Your task to perform on an android device: check out phone information Image 0: 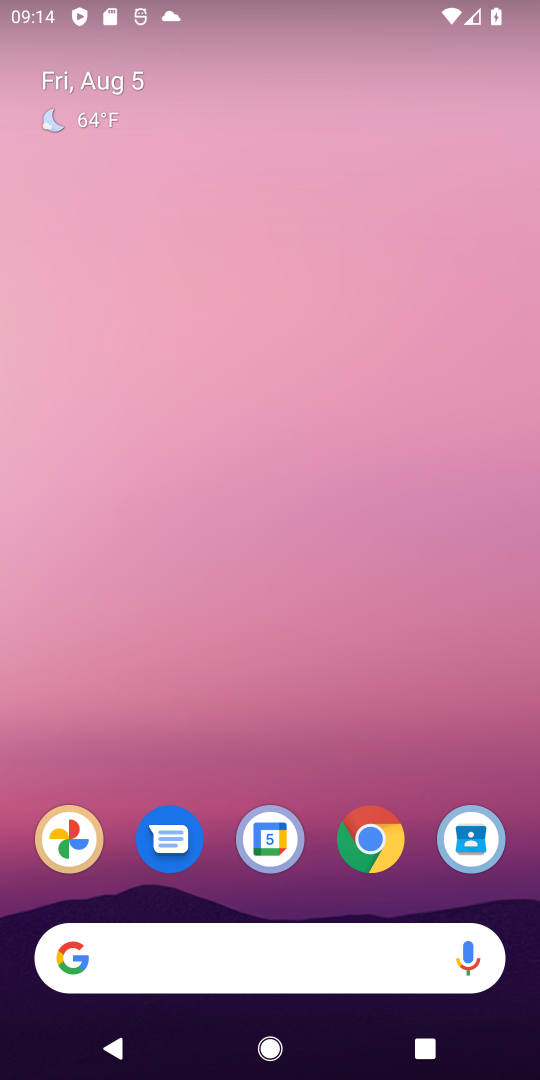
Step 0: drag from (316, 907) to (271, 172)
Your task to perform on an android device: check out phone information Image 1: 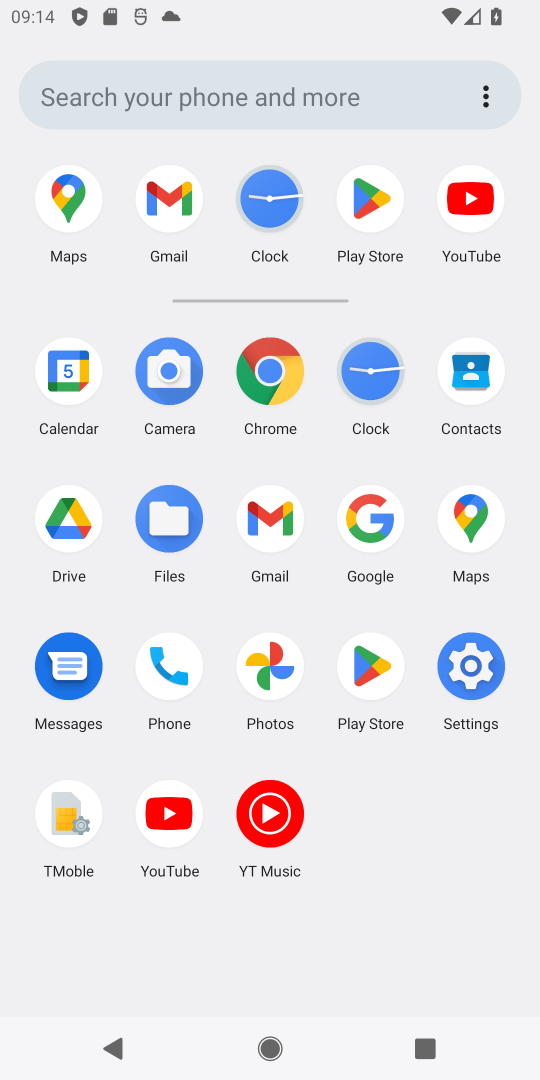
Step 1: click (460, 675)
Your task to perform on an android device: check out phone information Image 2: 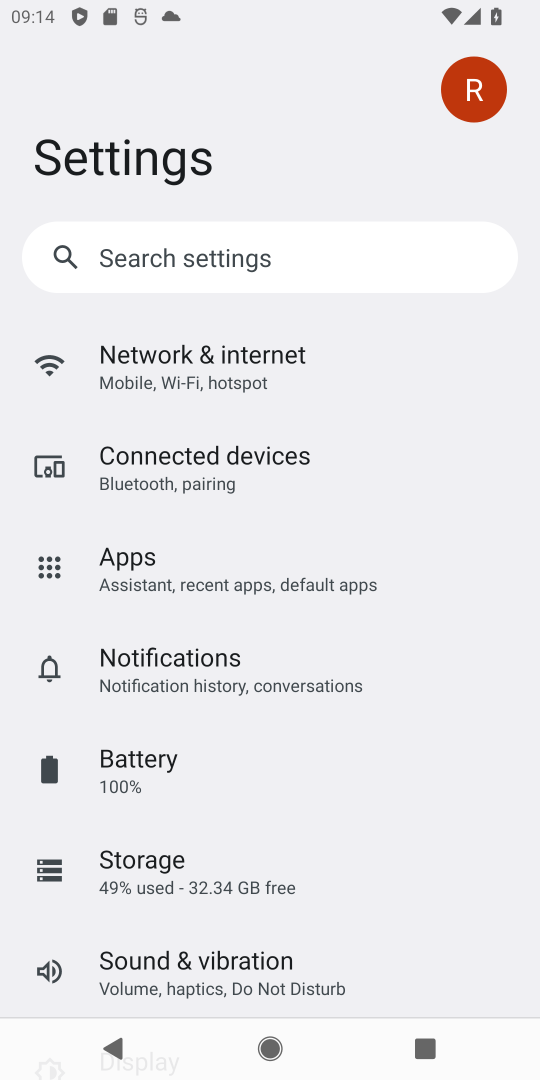
Step 2: drag from (224, 889) to (174, 416)
Your task to perform on an android device: check out phone information Image 3: 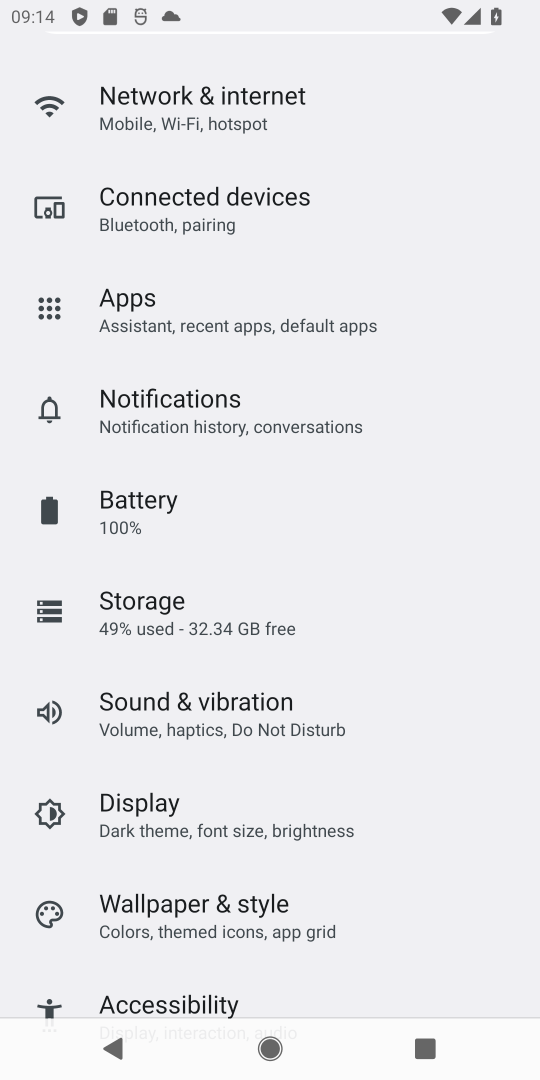
Step 3: drag from (242, 999) to (232, 425)
Your task to perform on an android device: check out phone information Image 4: 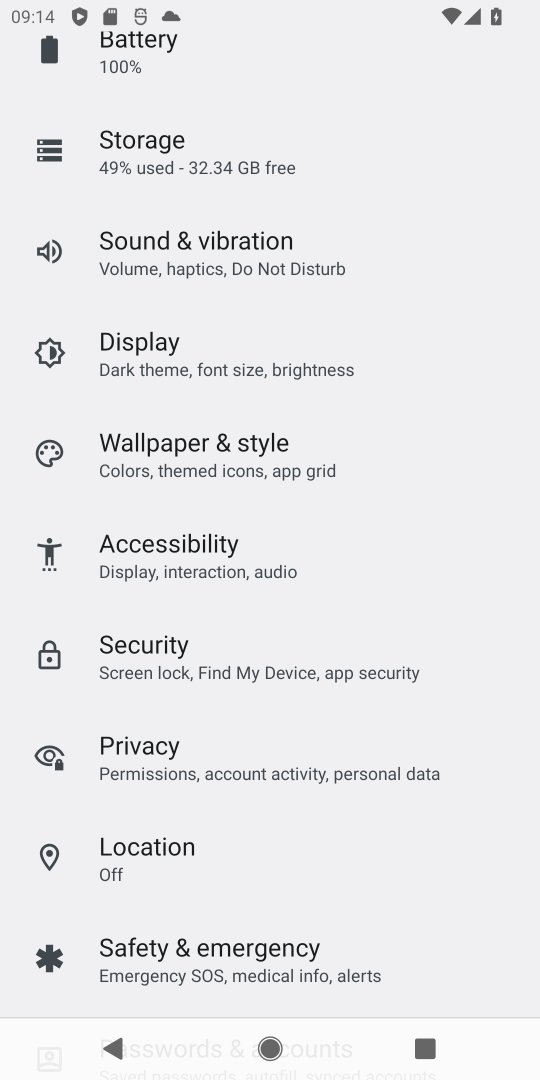
Step 4: drag from (230, 795) to (286, 365)
Your task to perform on an android device: check out phone information Image 5: 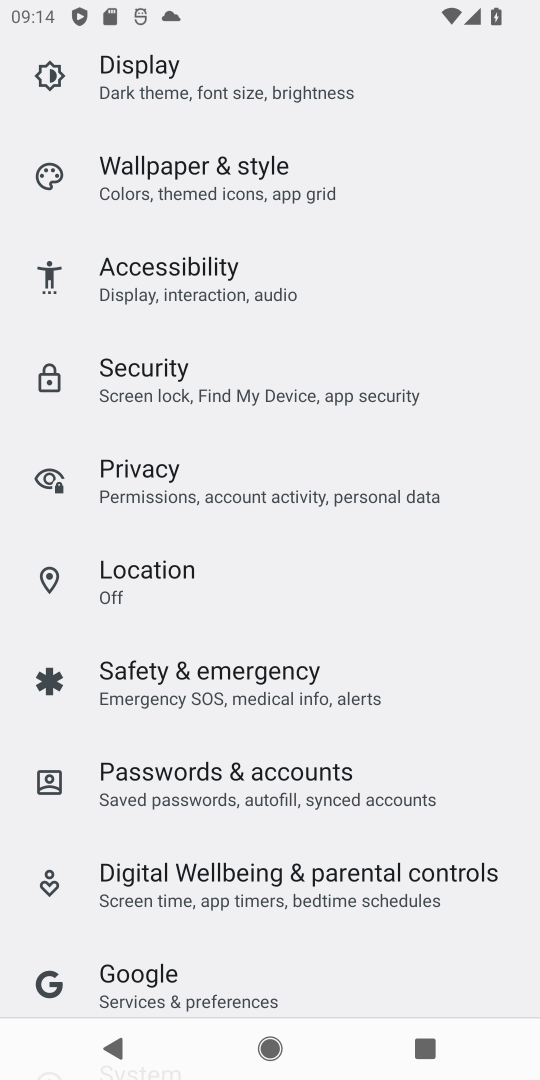
Step 5: drag from (173, 974) to (209, 419)
Your task to perform on an android device: check out phone information Image 6: 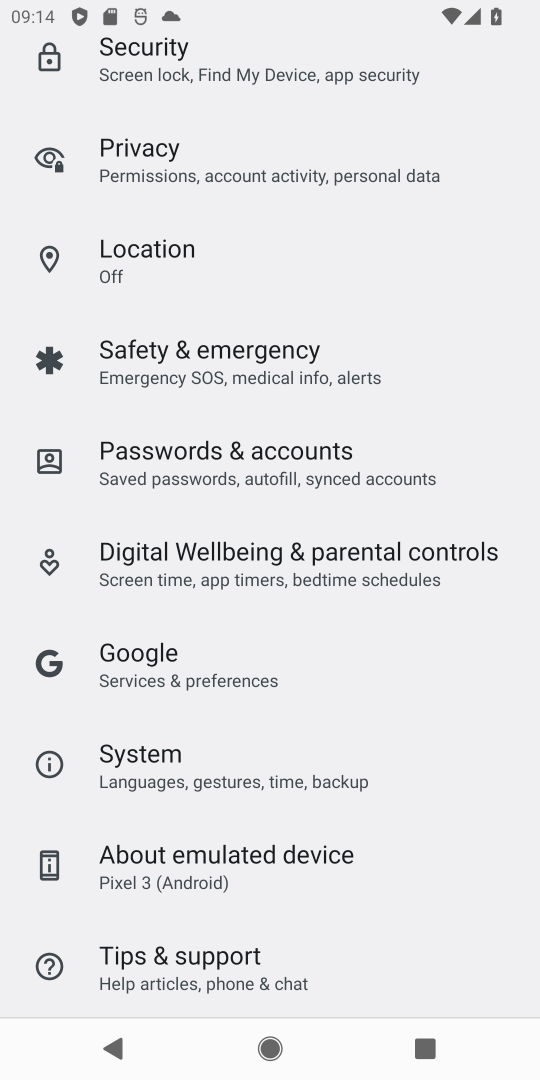
Step 6: drag from (227, 977) to (224, 492)
Your task to perform on an android device: check out phone information Image 7: 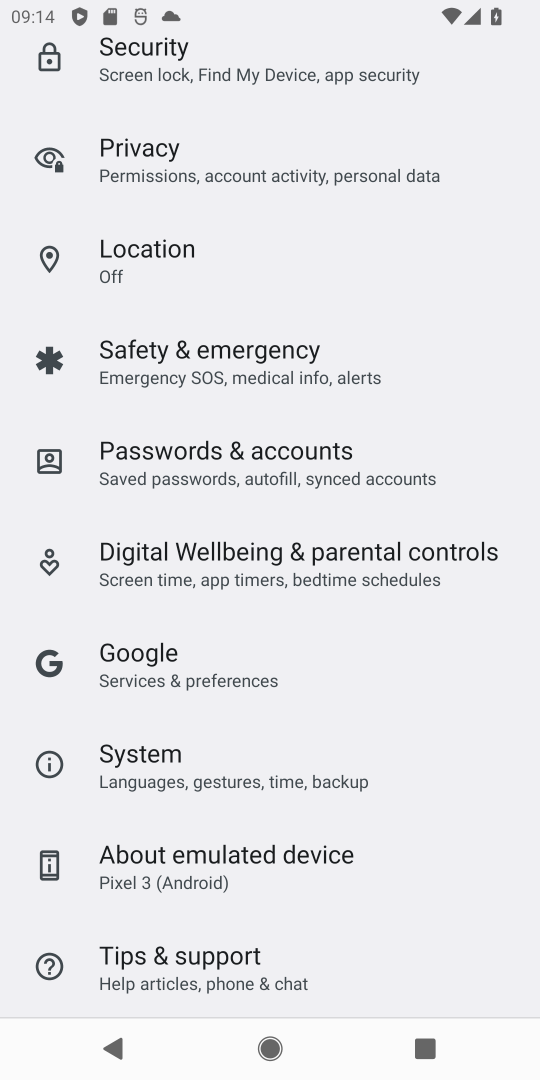
Step 7: click (216, 865)
Your task to perform on an android device: check out phone information Image 8: 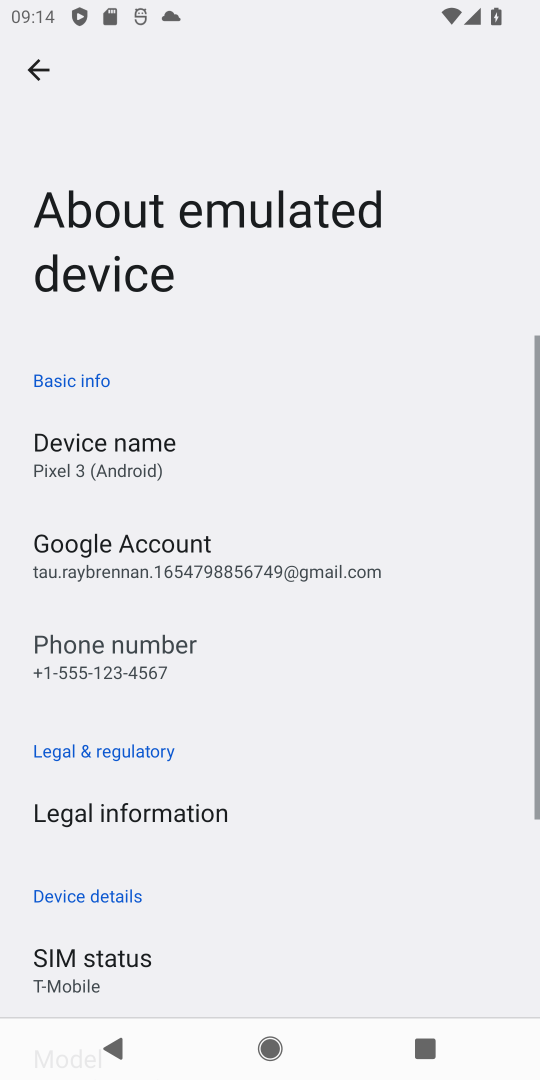
Step 8: task complete